Your task to perform on an android device: Open Google Maps Image 0: 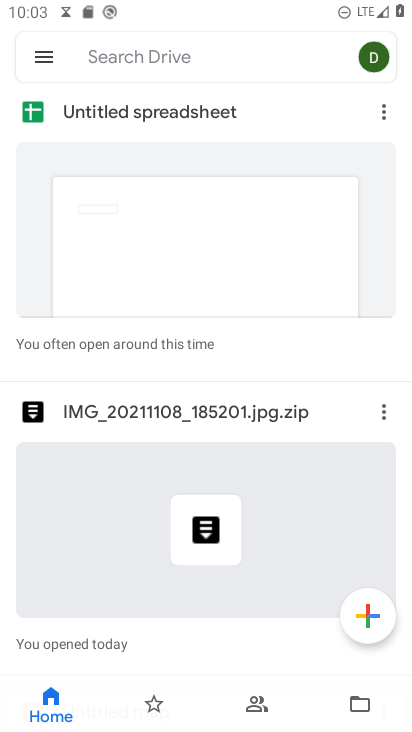
Step 0: press home button
Your task to perform on an android device: Open Google Maps Image 1: 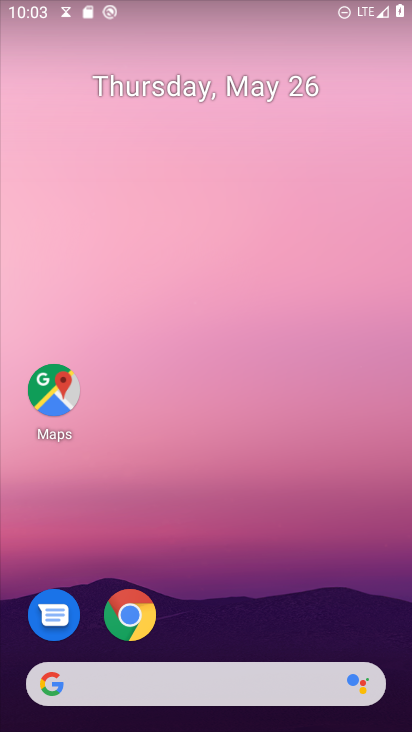
Step 1: click (48, 384)
Your task to perform on an android device: Open Google Maps Image 2: 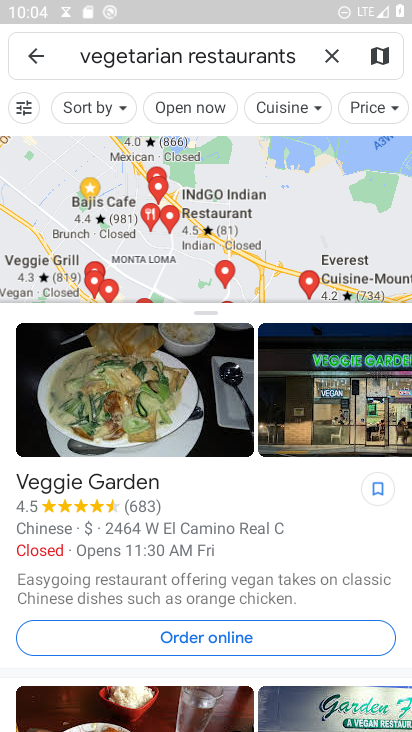
Step 2: task complete